Your task to perform on an android device: change the clock display to show seconds Image 0: 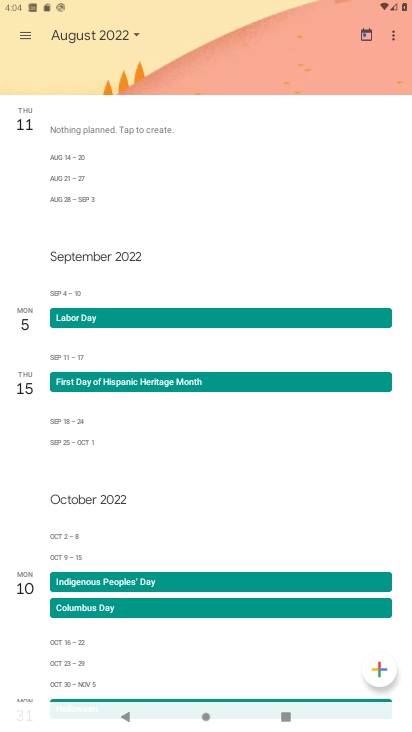
Step 0: press home button
Your task to perform on an android device: change the clock display to show seconds Image 1: 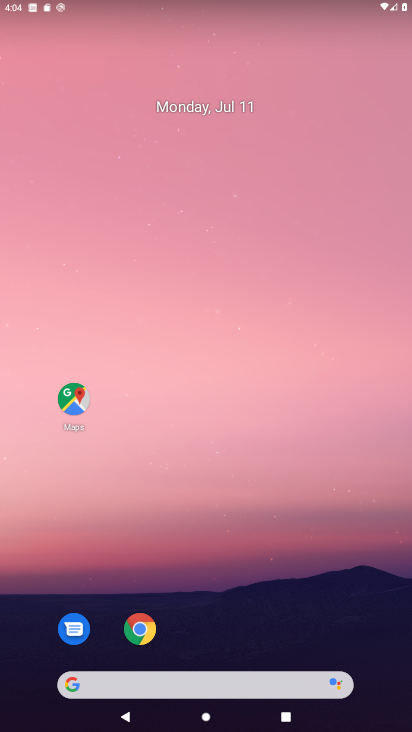
Step 1: drag from (379, 676) to (340, 179)
Your task to perform on an android device: change the clock display to show seconds Image 2: 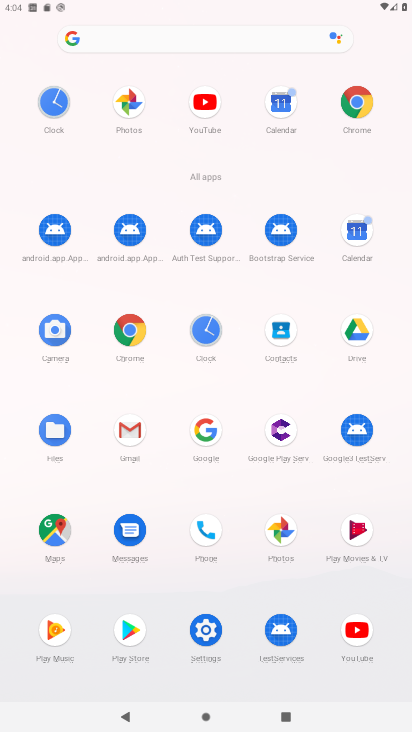
Step 2: click (212, 328)
Your task to perform on an android device: change the clock display to show seconds Image 3: 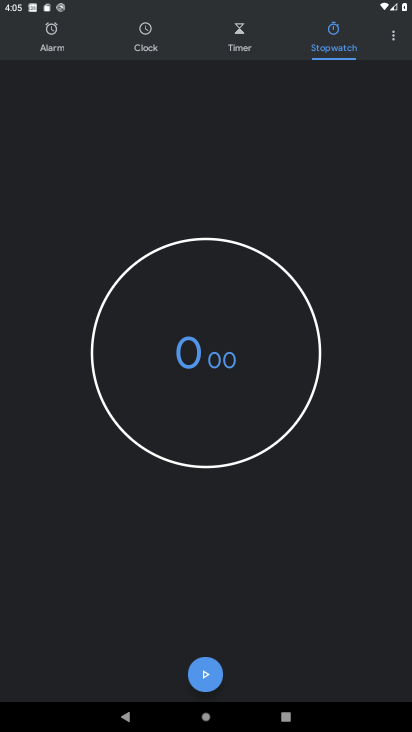
Step 3: click (396, 35)
Your task to perform on an android device: change the clock display to show seconds Image 4: 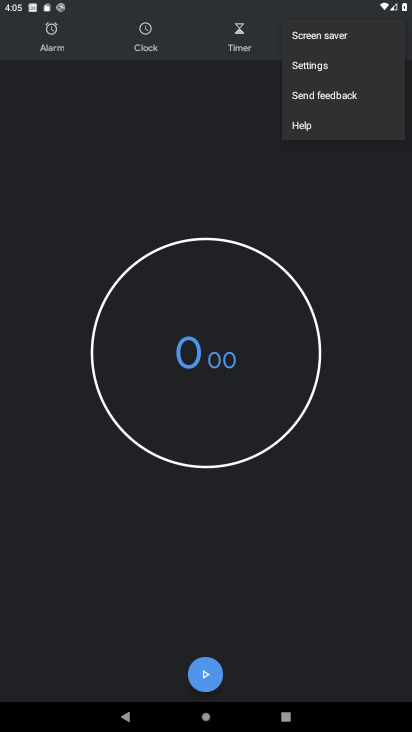
Step 4: click (315, 66)
Your task to perform on an android device: change the clock display to show seconds Image 5: 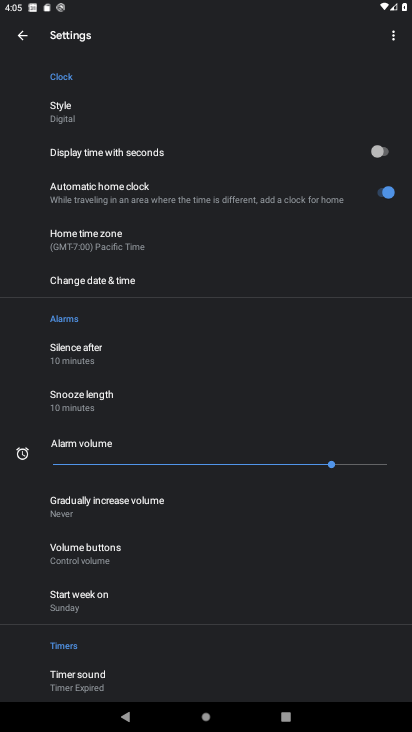
Step 5: click (381, 147)
Your task to perform on an android device: change the clock display to show seconds Image 6: 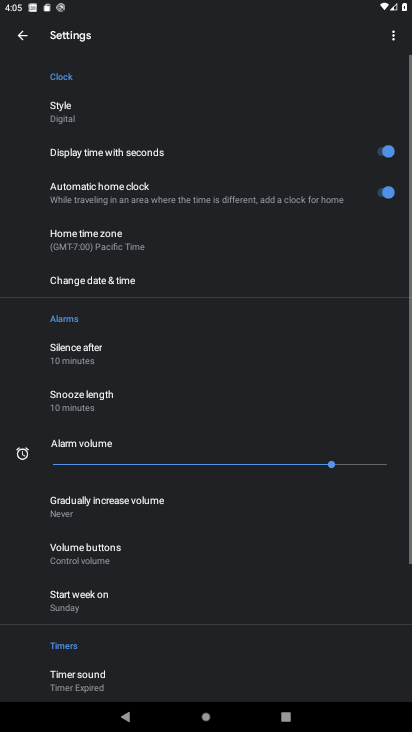
Step 6: task complete